Your task to perform on an android device: toggle notifications settings in the gmail app Image 0: 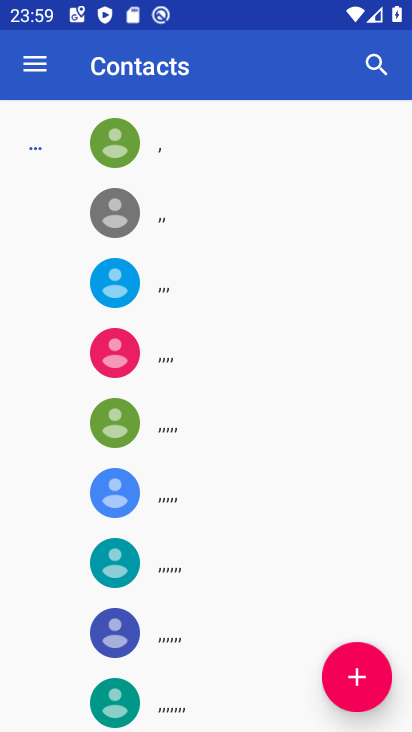
Step 0: press home button
Your task to perform on an android device: toggle notifications settings in the gmail app Image 1: 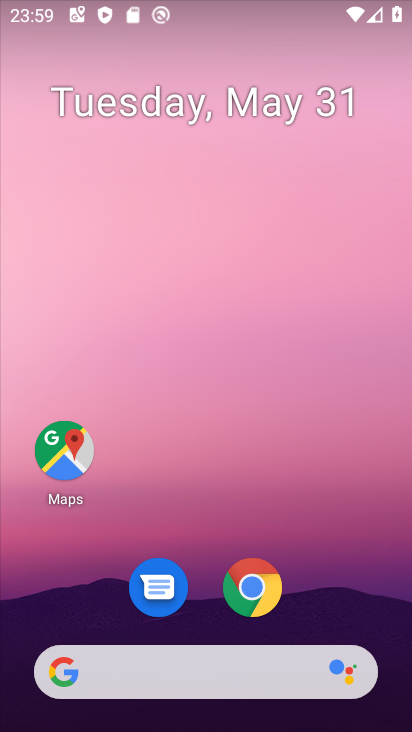
Step 1: drag from (333, 619) to (329, 66)
Your task to perform on an android device: toggle notifications settings in the gmail app Image 2: 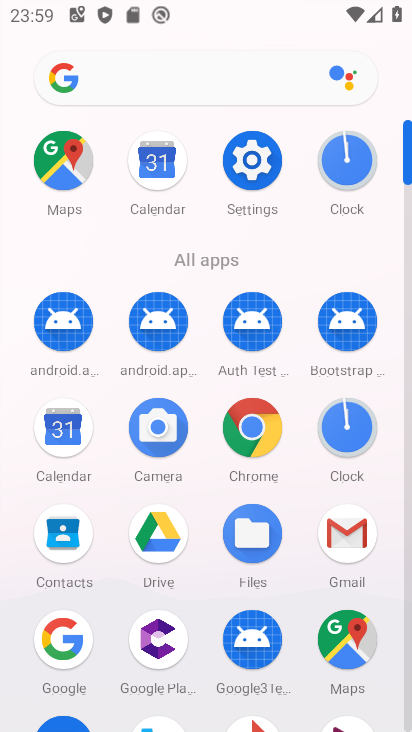
Step 2: click (345, 529)
Your task to perform on an android device: toggle notifications settings in the gmail app Image 3: 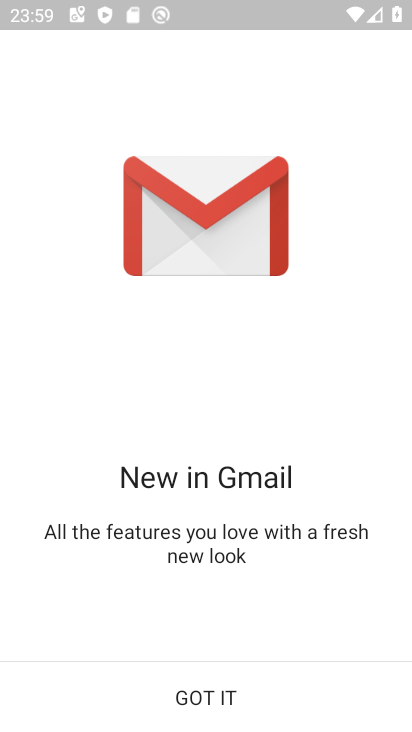
Step 3: click (280, 689)
Your task to perform on an android device: toggle notifications settings in the gmail app Image 4: 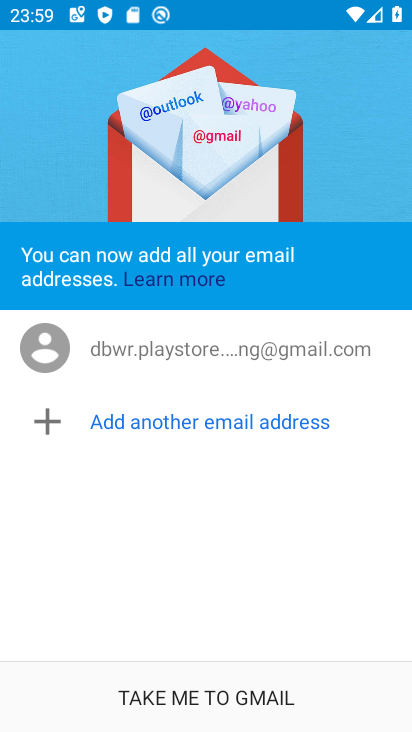
Step 4: click (280, 689)
Your task to perform on an android device: toggle notifications settings in the gmail app Image 5: 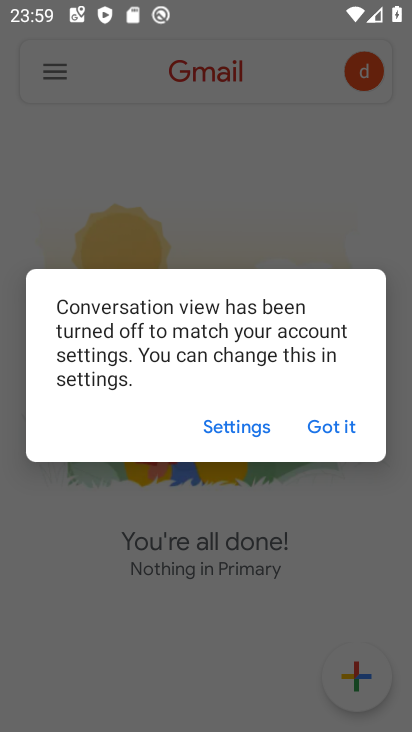
Step 5: click (320, 417)
Your task to perform on an android device: toggle notifications settings in the gmail app Image 6: 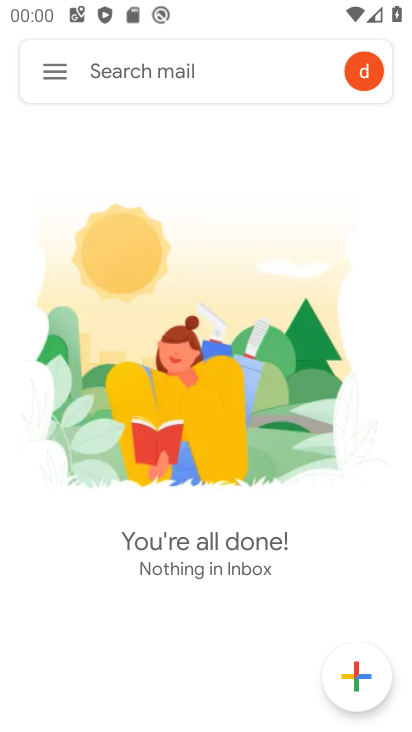
Step 6: click (64, 67)
Your task to perform on an android device: toggle notifications settings in the gmail app Image 7: 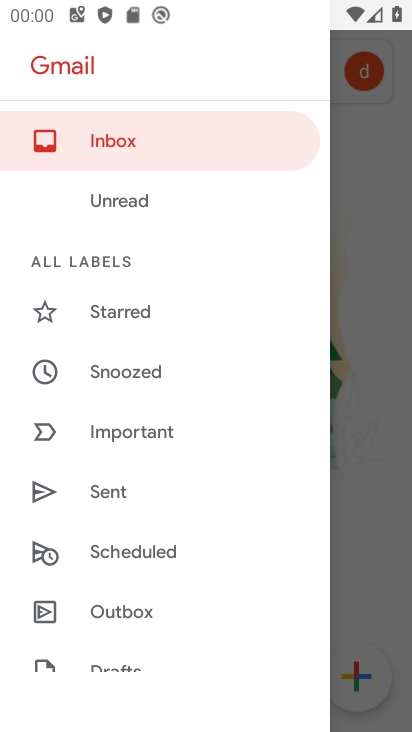
Step 7: drag from (141, 661) to (174, 225)
Your task to perform on an android device: toggle notifications settings in the gmail app Image 8: 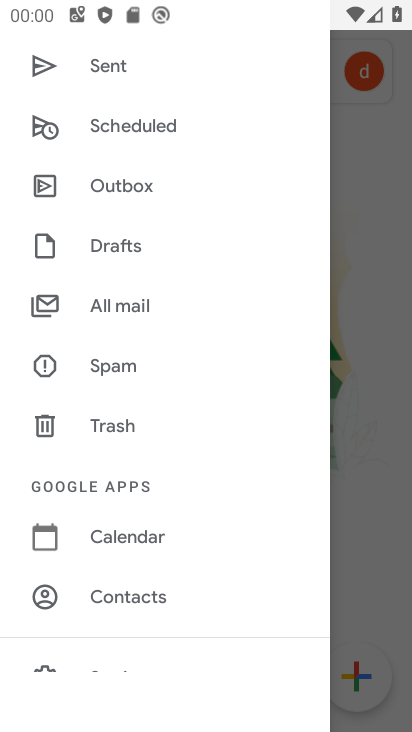
Step 8: drag from (196, 604) to (204, 106)
Your task to perform on an android device: toggle notifications settings in the gmail app Image 9: 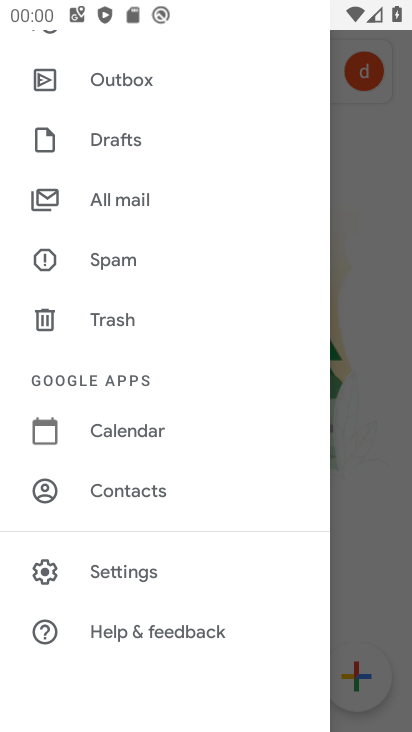
Step 9: click (117, 581)
Your task to perform on an android device: toggle notifications settings in the gmail app Image 10: 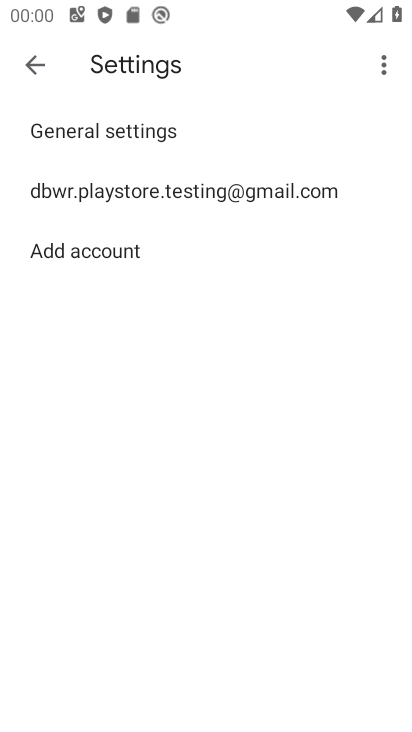
Step 10: click (169, 191)
Your task to perform on an android device: toggle notifications settings in the gmail app Image 11: 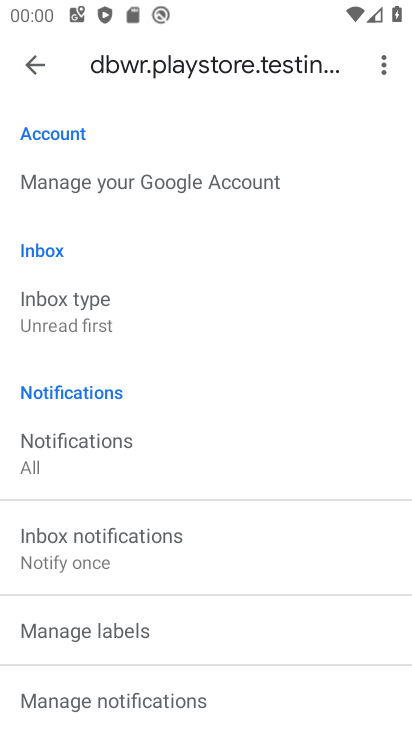
Step 11: click (106, 695)
Your task to perform on an android device: toggle notifications settings in the gmail app Image 12: 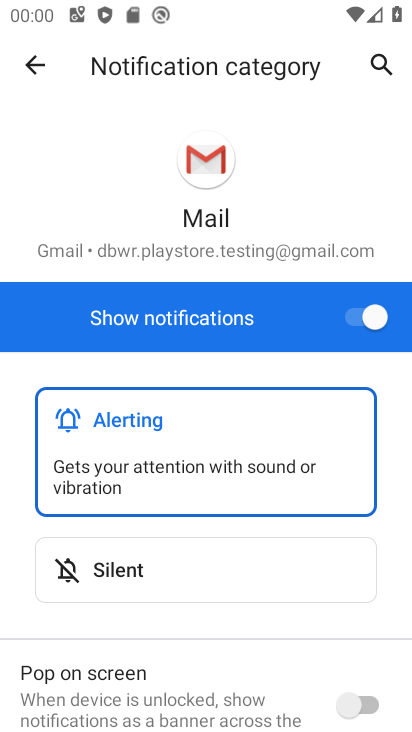
Step 12: click (329, 307)
Your task to perform on an android device: toggle notifications settings in the gmail app Image 13: 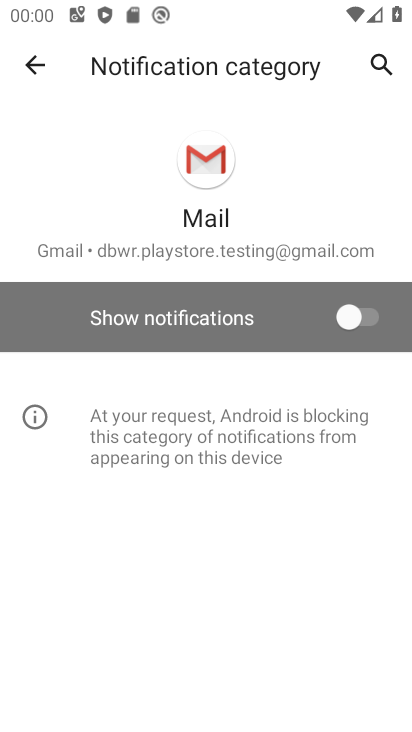
Step 13: task complete